Your task to perform on an android device: open a bookmark in the chrome app Image 0: 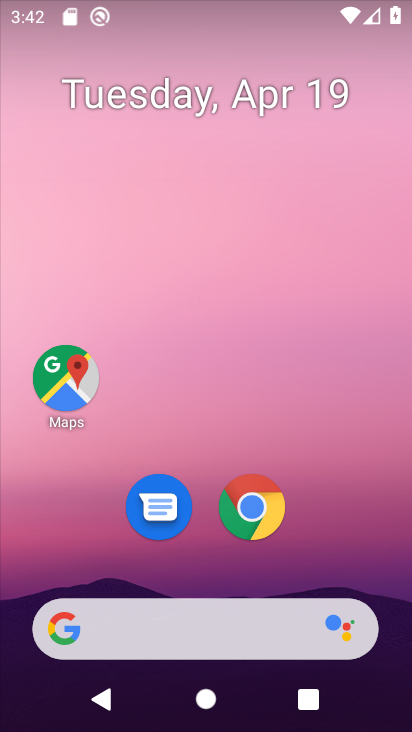
Step 0: click (245, 499)
Your task to perform on an android device: open a bookmark in the chrome app Image 1: 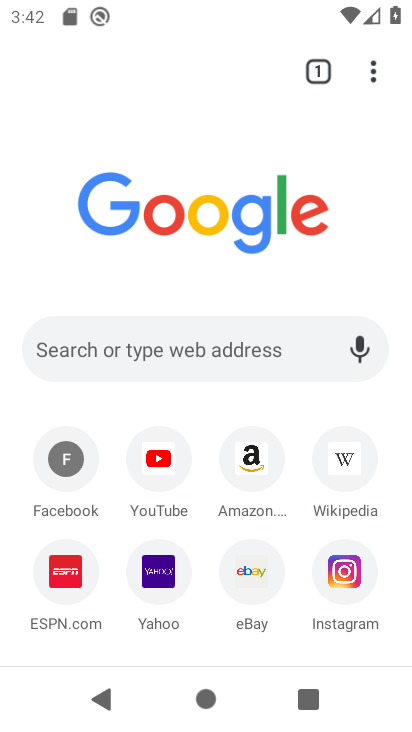
Step 1: click (370, 66)
Your task to perform on an android device: open a bookmark in the chrome app Image 2: 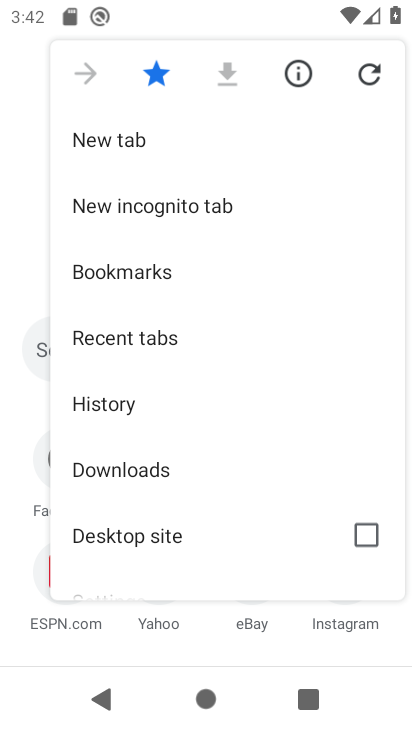
Step 2: click (188, 280)
Your task to perform on an android device: open a bookmark in the chrome app Image 3: 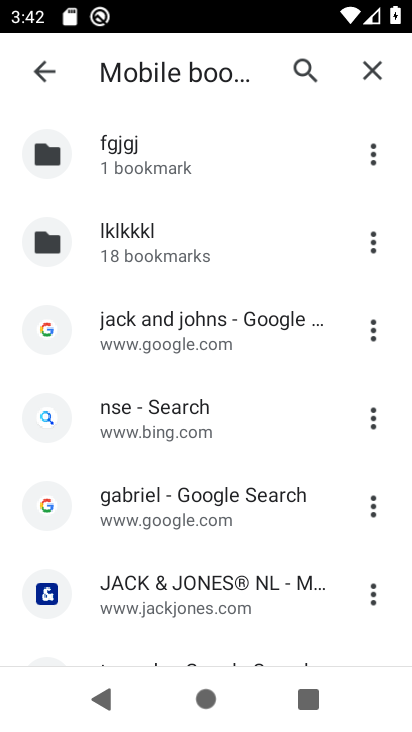
Step 3: click (190, 325)
Your task to perform on an android device: open a bookmark in the chrome app Image 4: 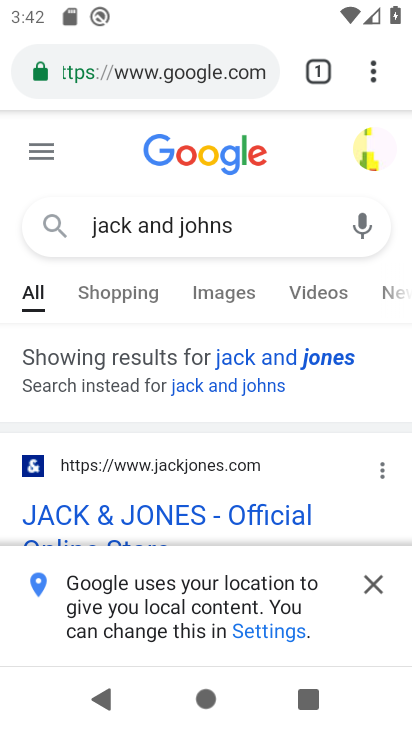
Step 4: task complete